Your task to perform on an android device: see tabs open on other devices in the chrome app Image 0: 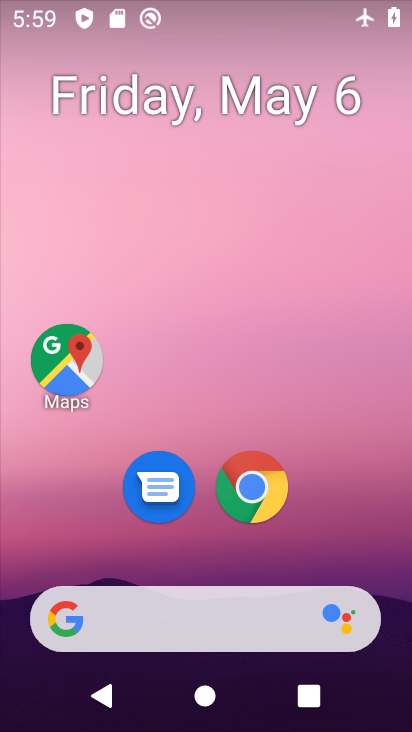
Step 0: drag from (324, 466) to (377, 158)
Your task to perform on an android device: see tabs open on other devices in the chrome app Image 1: 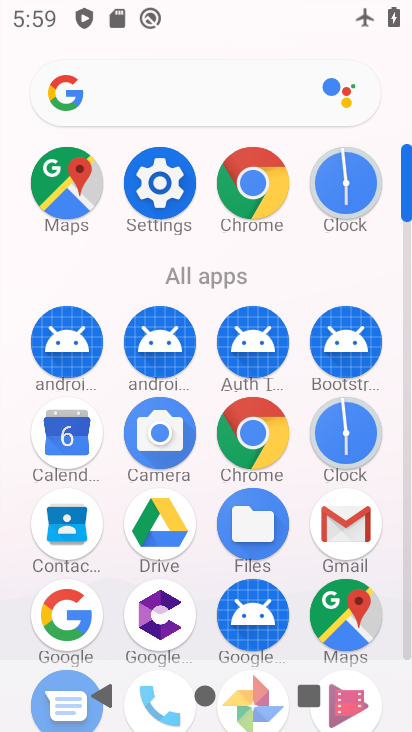
Step 1: click (248, 176)
Your task to perform on an android device: see tabs open on other devices in the chrome app Image 2: 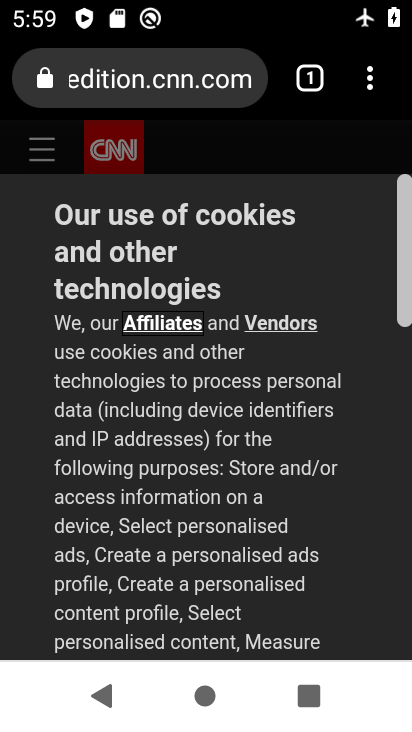
Step 2: click (370, 88)
Your task to perform on an android device: see tabs open on other devices in the chrome app Image 3: 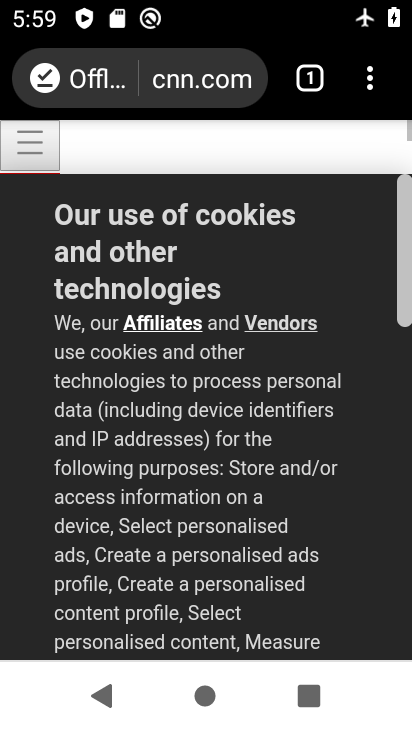
Step 3: drag from (326, 8) to (326, 509)
Your task to perform on an android device: see tabs open on other devices in the chrome app Image 4: 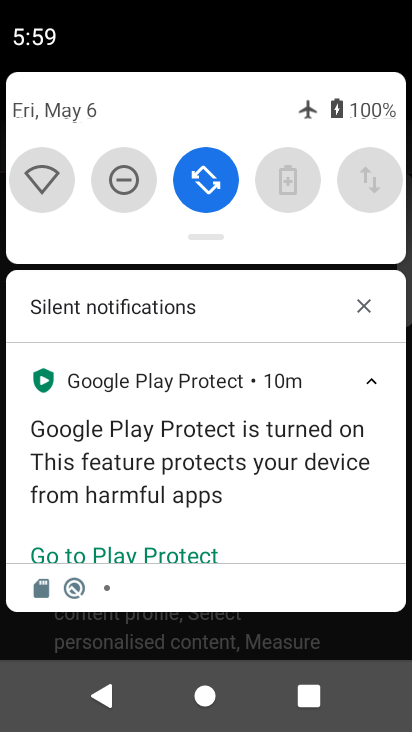
Step 4: drag from (302, 236) to (312, 607)
Your task to perform on an android device: see tabs open on other devices in the chrome app Image 5: 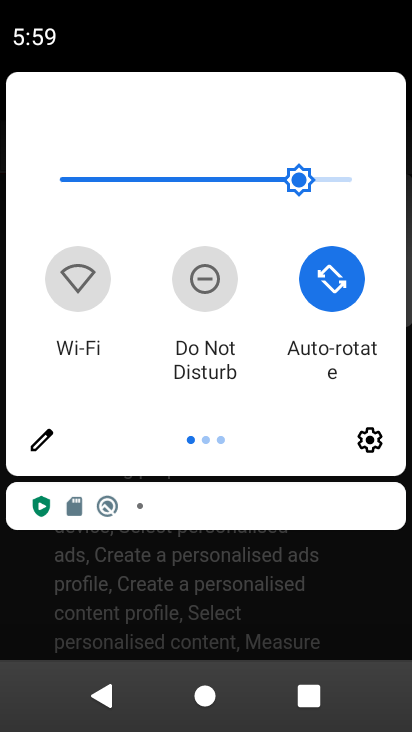
Step 5: drag from (371, 254) to (47, 223)
Your task to perform on an android device: see tabs open on other devices in the chrome app Image 6: 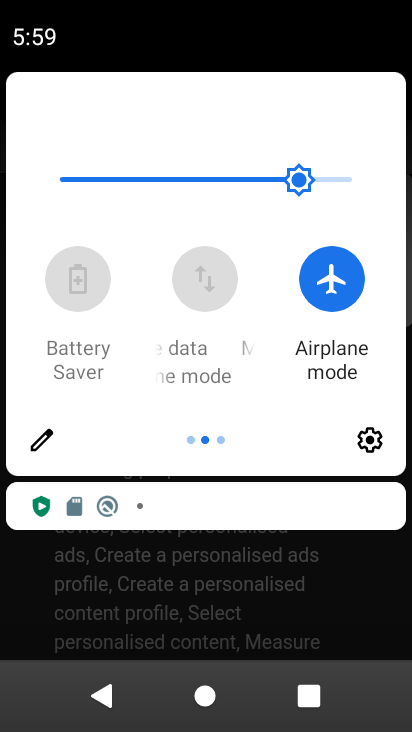
Step 6: click (341, 277)
Your task to perform on an android device: see tabs open on other devices in the chrome app Image 7: 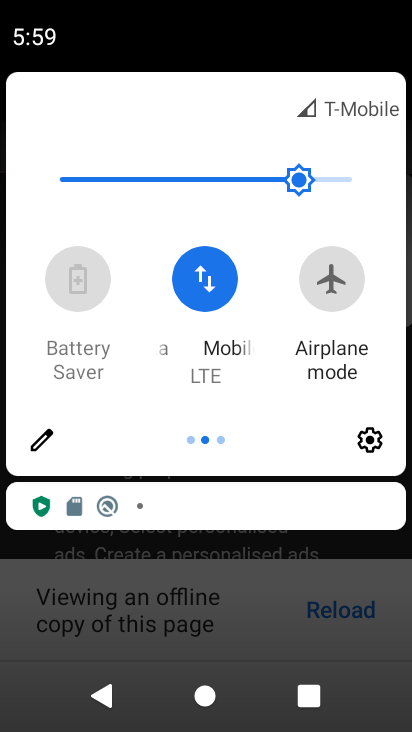
Step 7: drag from (366, 586) to (351, 48)
Your task to perform on an android device: see tabs open on other devices in the chrome app Image 8: 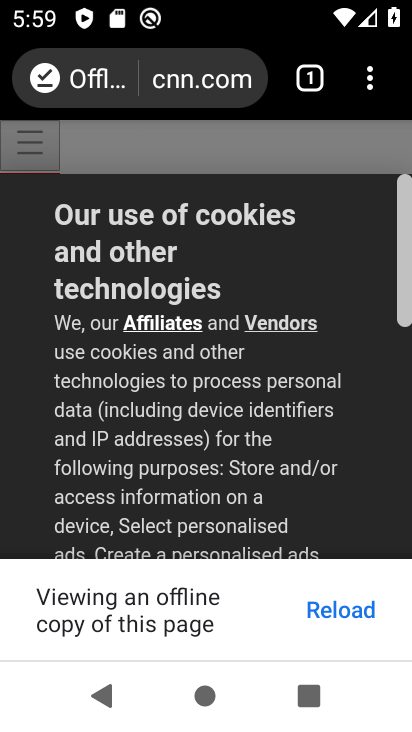
Step 8: drag from (370, 80) to (124, 376)
Your task to perform on an android device: see tabs open on other devices in the chrome app Image 9: 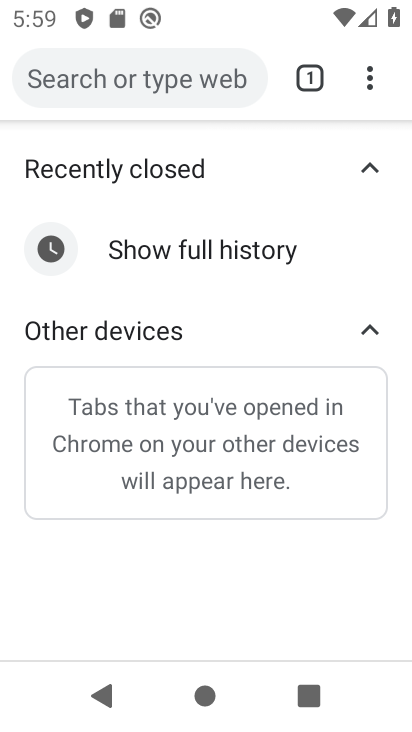
Step 9: click (365, 322)
Your task to perform on an android device: see tabs open on other devices in the chrome app Image 10: 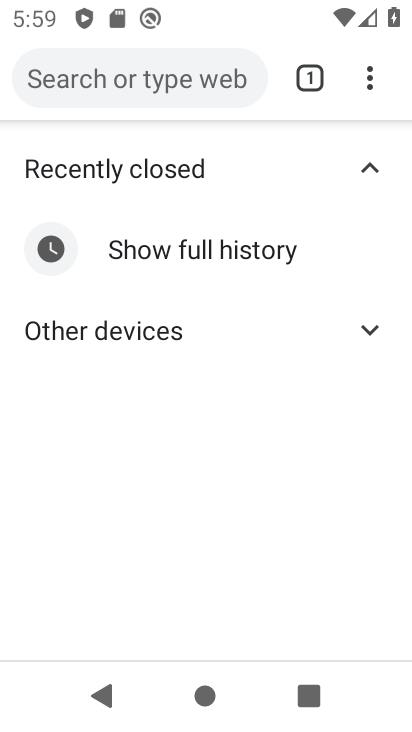
Step 10: click (365, 322)
Your task to perform on an android device: see tabs open on other devices in the chrome app Image 11: 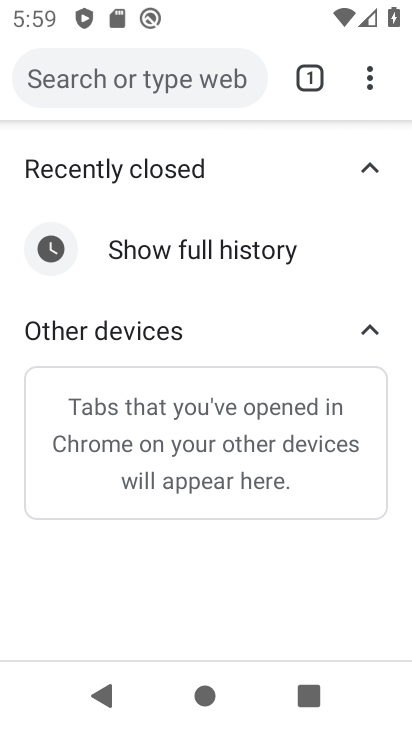
Step 11: task complete